Your task to perform on an android device: When is my next appointment? Image 0: 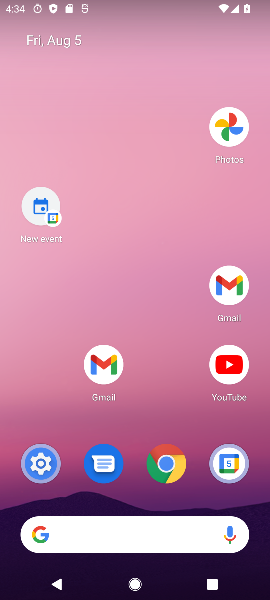
Step 0: drag from (163, 270) to (154, 204)
Your task to perform on an android device: When is my next appointment? Image 1: 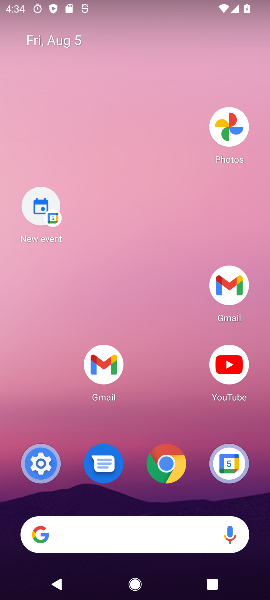
Step 1: drag from (152, 499) to (128, 190)
Your task to perform on an android device: When is my next appointment? Image 2: 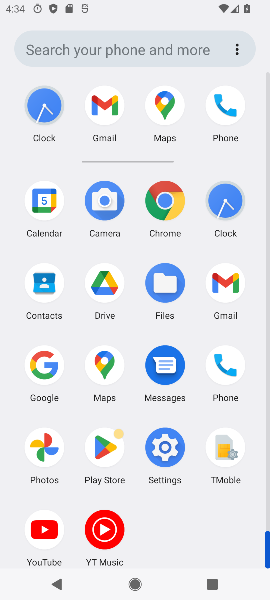
Step 2: drag from (174, 508) to (139, 236)
Your task to perform on an android device: When is my next appointment? Image 3: 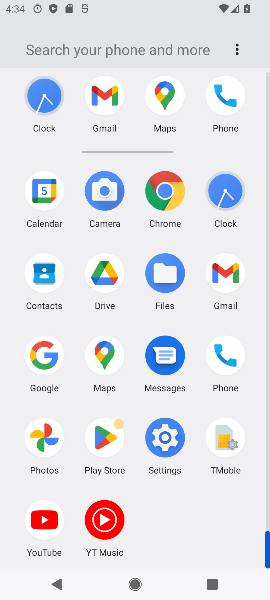
Step 3: click (35, 196)
Your task to perform on an android device: When is my next appointment? Image 4: 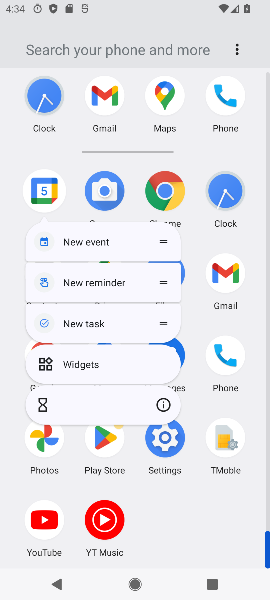
Step 4: click (39, 193)
Your task to perform on an android device: When is my next appointment? Image 5: 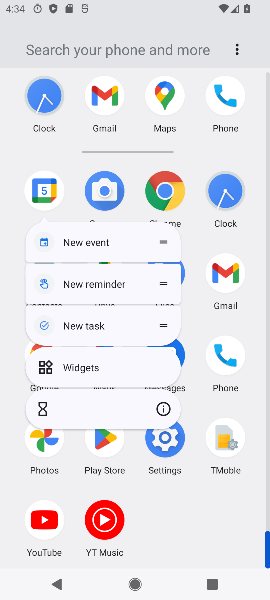
Step 5: click (48, 191)
Your task to perform on an android device: When is my next appointment? Image 6: 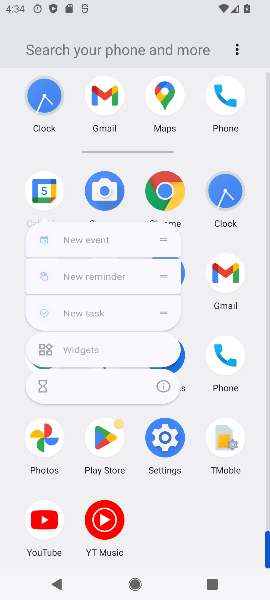
Step 6: click (50, 192)
Your task to perform on an android device: When is my next appointment? Image 7: 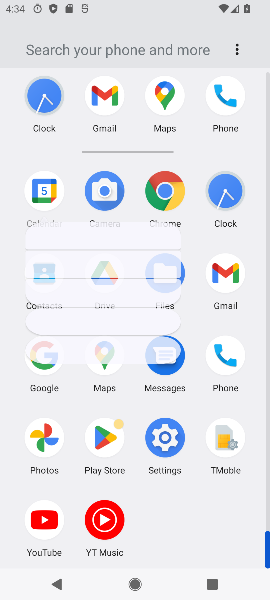
Step 7: click (50, 192)
Your task to perform on an android device: When is my next appointment? Image 8: 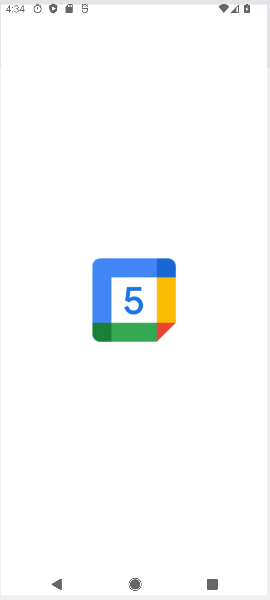
Step 8: click (51, 193)
Your task to perform on an android device: When is my next appointment? Image 9: 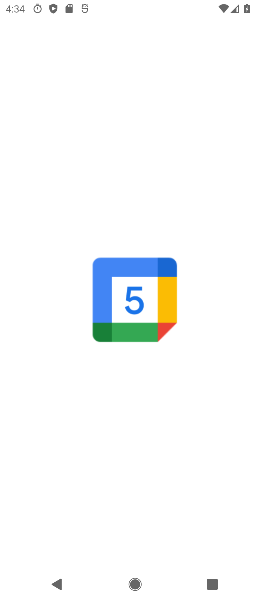
Step 9: click (51, 193)
Your task to perform on an android device: When is my next appointment? Image 10: 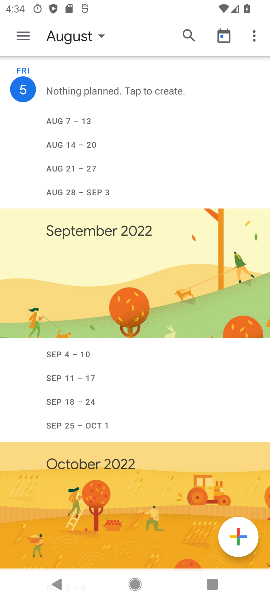
Step 10: click (102, 37)
Your task to perform on an android device: When is my next appointment? Image 11: 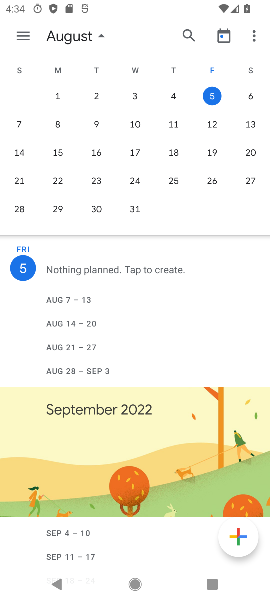
Step 11: task complete